Your task to perform on an android device: open a bookmark in the chrome app Image 0: 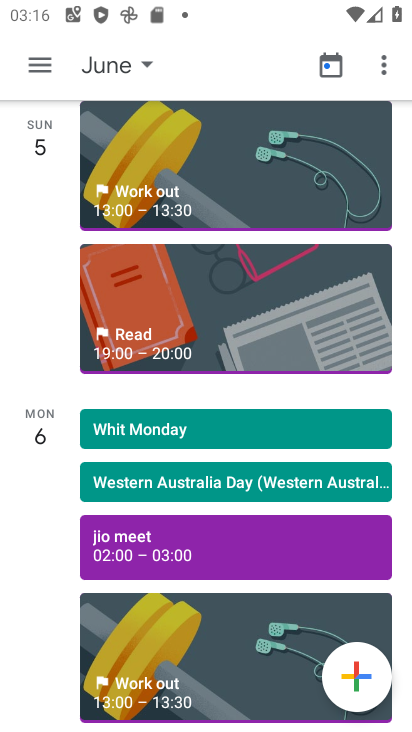
Step 0: press home button
Your task to perform on an android device: open a bookmark in the chrome app Image 1: 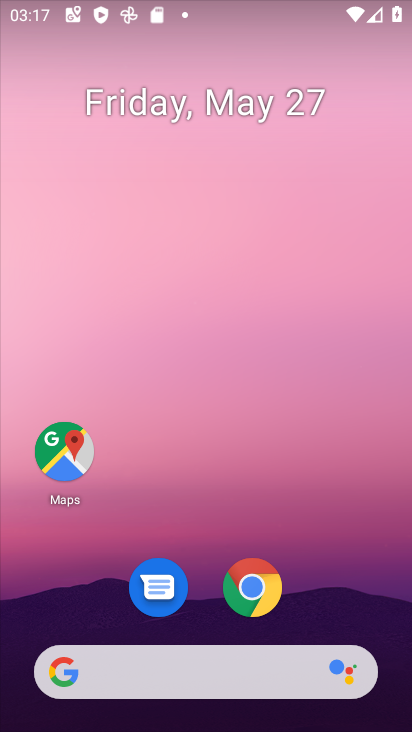
Step 1: click (247, 583)
Your task to perform on an android device: open a bookmark in the chrome app Image 2: 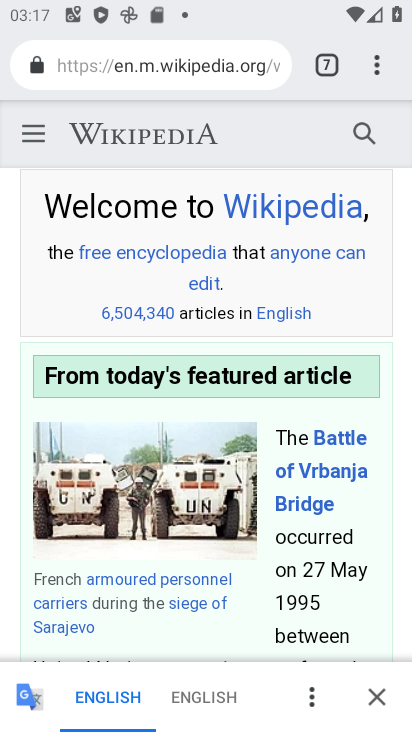
Step 2: click (381, 58)
Your task to perform on an android device: open a bookmark in the chrome app Image 3: 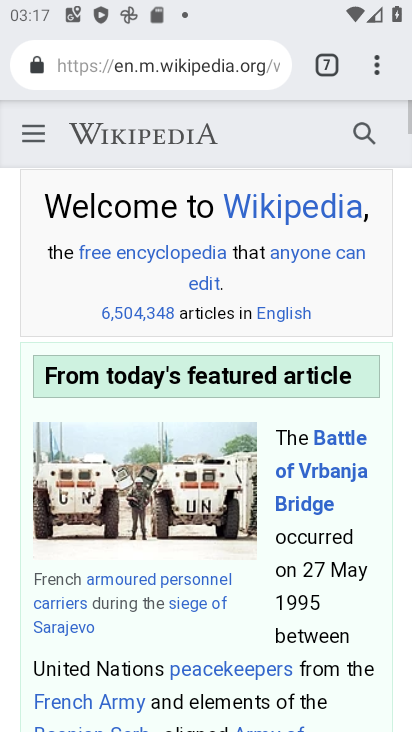
Step 3: task complete